Your task to perform on an android device: Open maps Image 0: 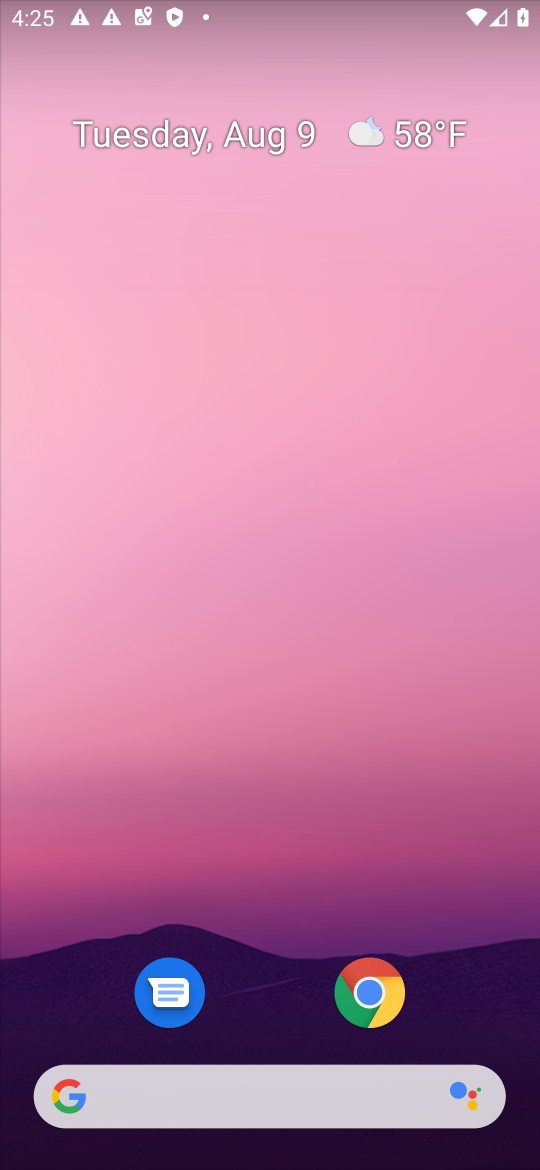
Step 0: drag from (346, 1103) to (305, 25)
Your task to perform on an android device: Open maps Image 1: 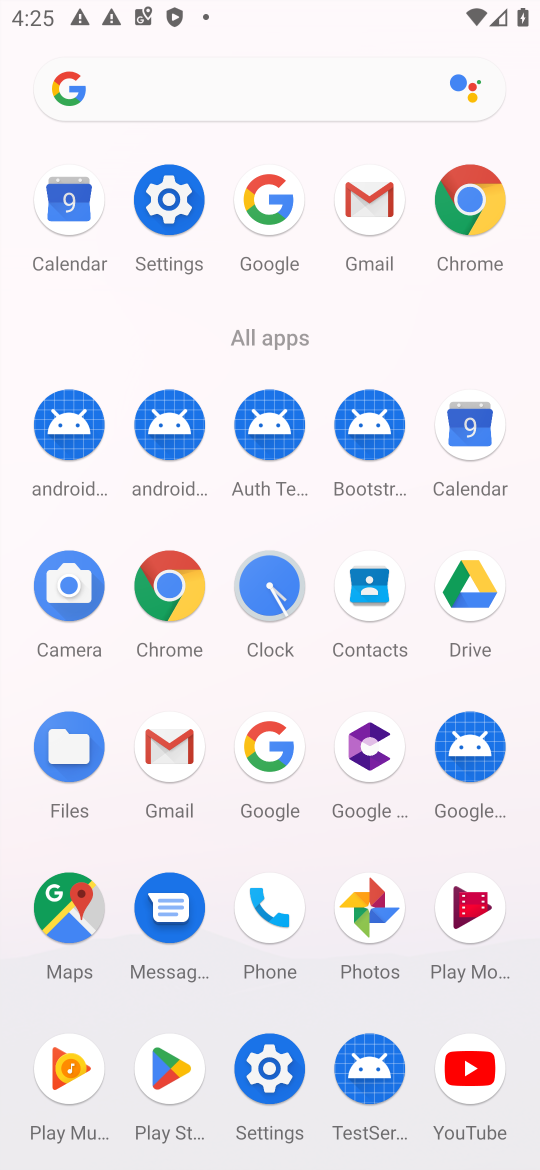
Step 1: click (77, 907)
Your task to perform on an android device: Open maps Image 2: 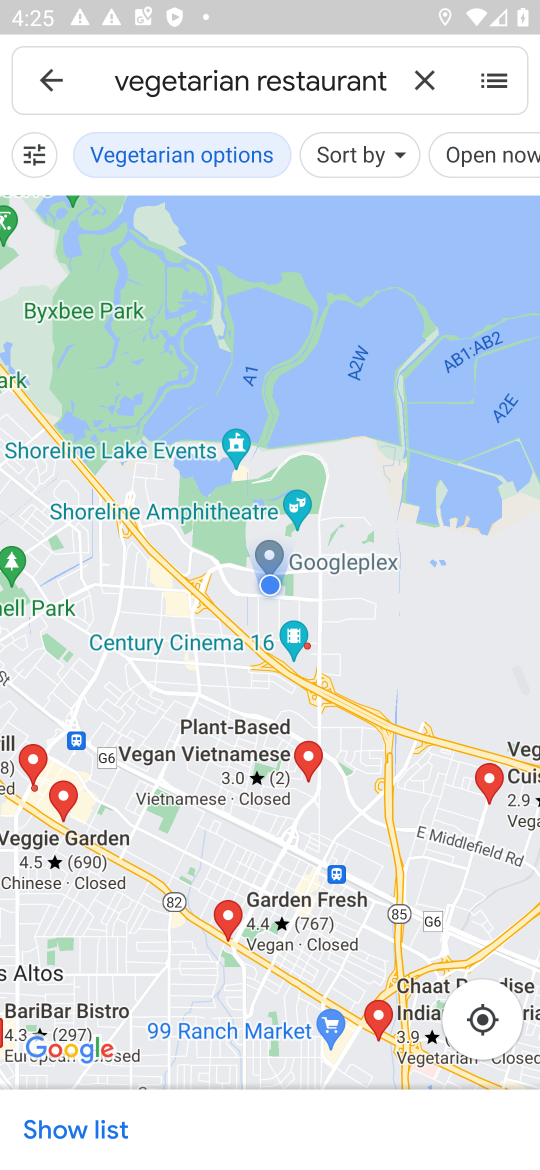
Step 2: task complete